Your task to perform on an android device: Open Wikipedia Image 0: 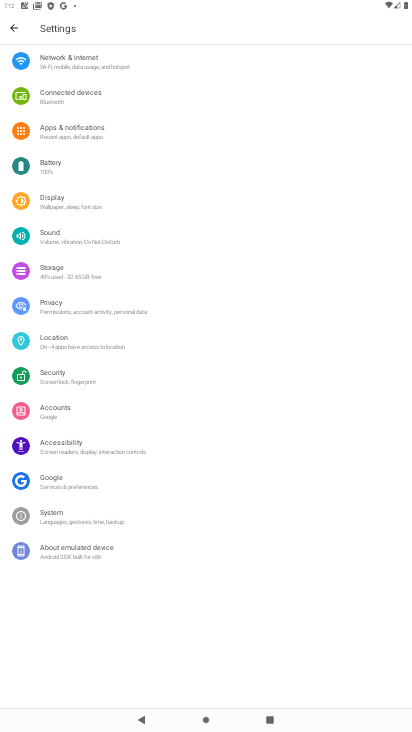
Step 0: press home button
Your task to perform on an android device: Open Wikipedia Image 1: 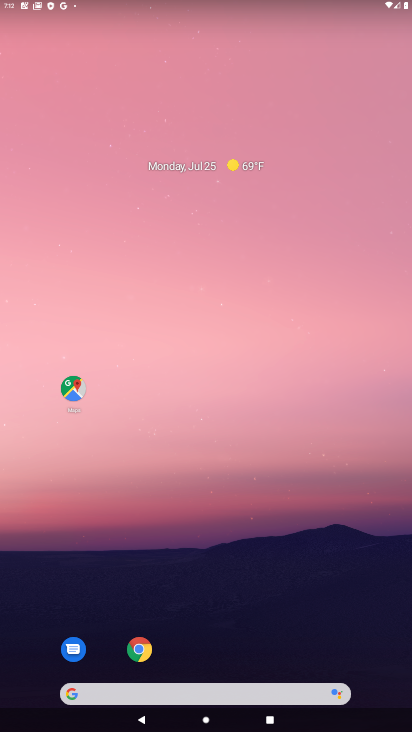
Step 1: drag from (215, 479) to (320, 5)
Your task to perform on an android device: Open Wikipedia Image 2: 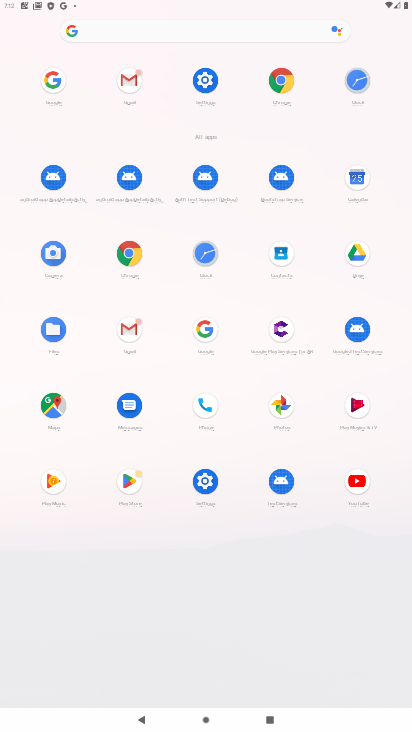
Step 2: click (288, 84)
Your task to perform on an android device: Open Wikipedia Image 3: 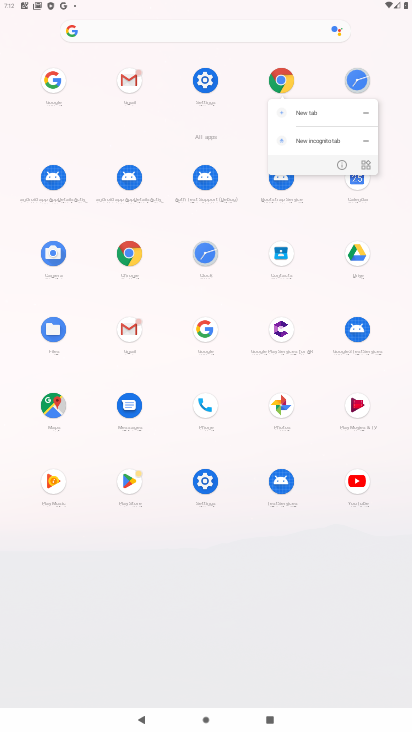
Step 3: click (277, 81)
Your task to perform on an android device: Open Wikipedia Image 4: 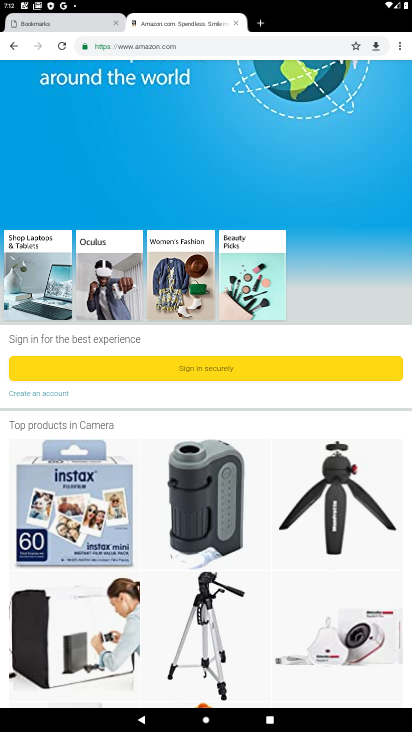
Step 4: click (18, 46)
Your task to perform on an android device: Open Wikipedia Image 5: 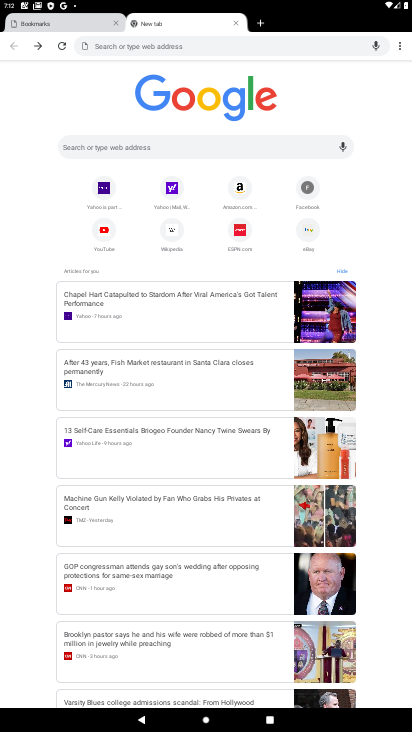
Step 5: click (172, 231)
Your task to perform on an android device: Open Wikipedia Image 6: 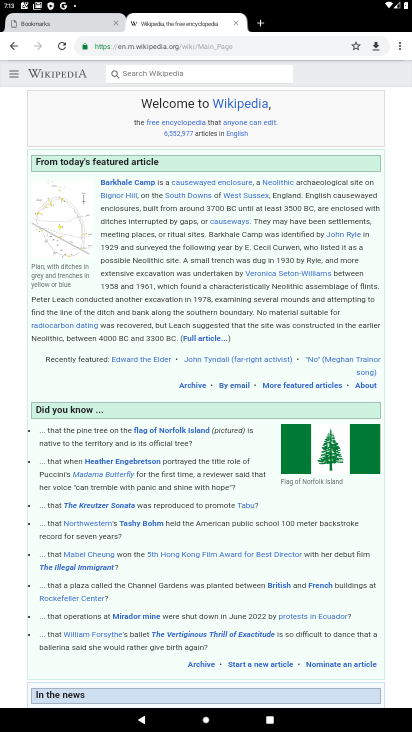
Step 6: task complete